Your task to perform on an android device: open wifi settings Image 0: 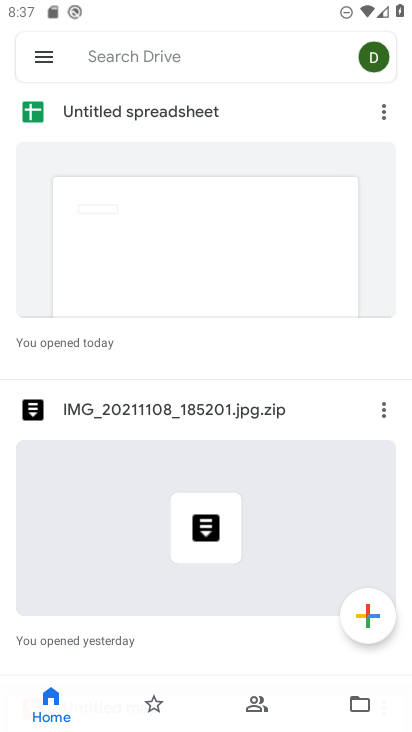
Step 0: press home button
Your task to perform on an android device: open wifi settings Image 1: 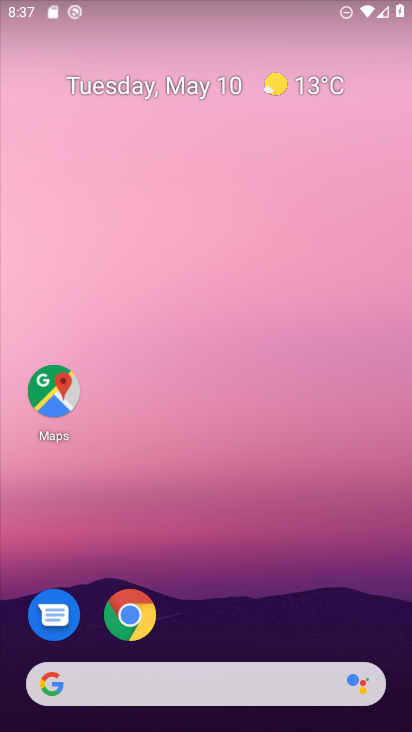
Step 1: drag from (183, 543) to (157, 177)
Your task to perform on an android device: open wifi settings Image 2: 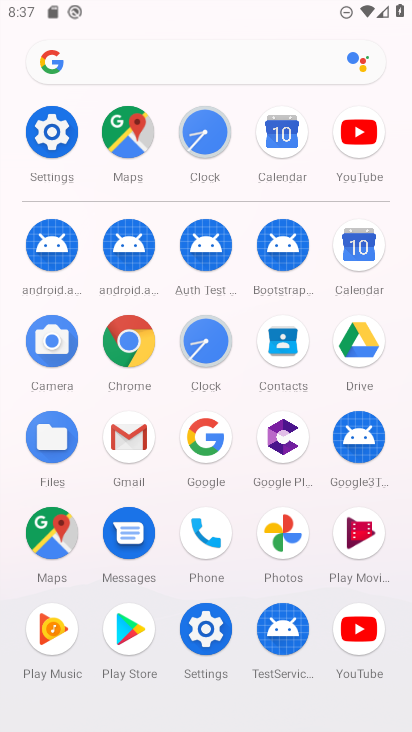
Step 2: click (376, 450)
Your task to perform on an android device: open wifi settings Image 3: 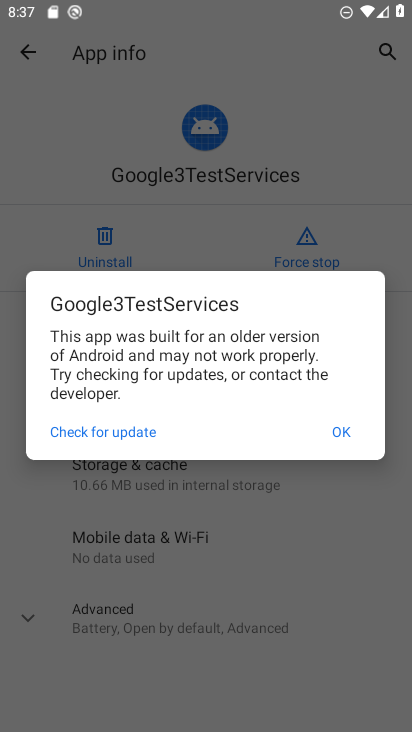
Step 3: click (336, 425)
Your task to perform on an android device: open wifi settings Image 4: 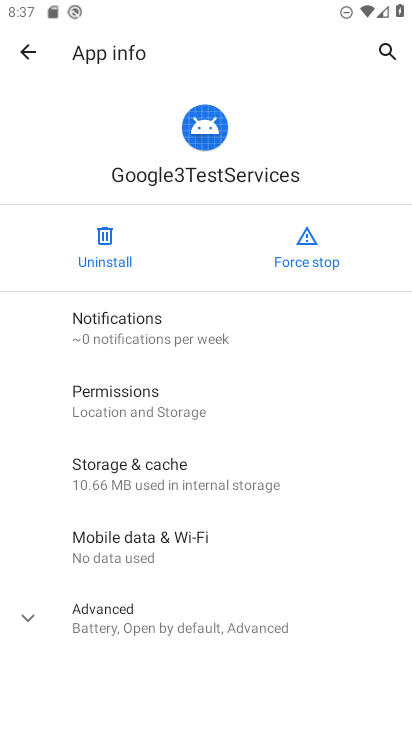
Step 4: press home button
Your task to perform on an android device: open wifi settings Image 5: 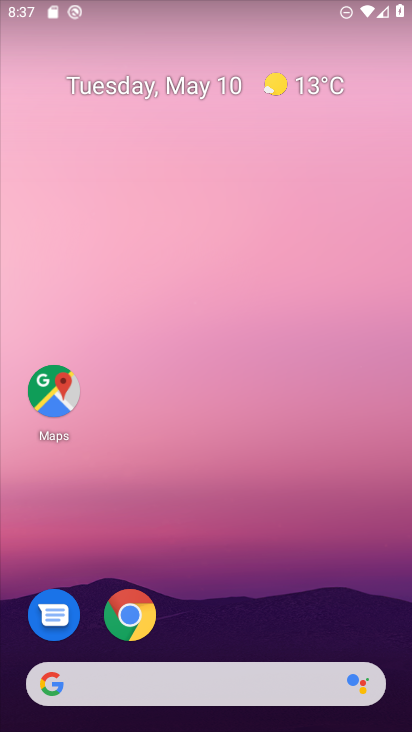
Step 5: drag from (235, 580) to (125, 150)
Your task to perform on an android device: open wifi settings Image 6: 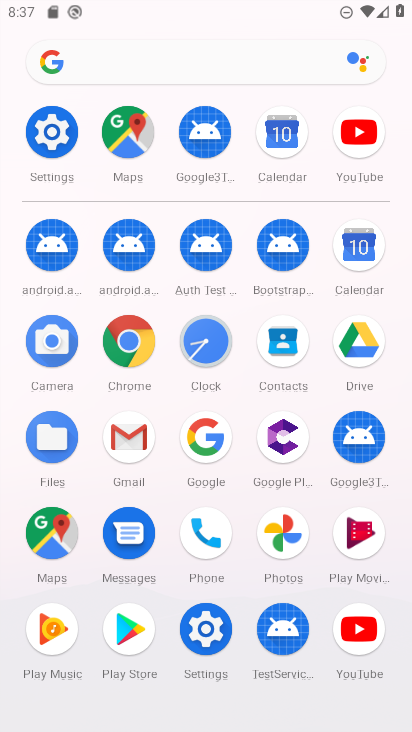
Step 6: click (53, 125)
Your task to perform on an android device: open wifi settings Image 7: 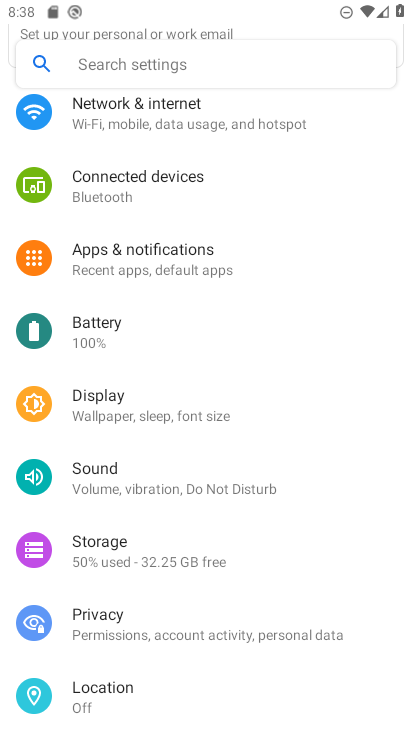
Step 7: click (116, 101)
Your task to perform on an android device: open wifi settings Image 8: 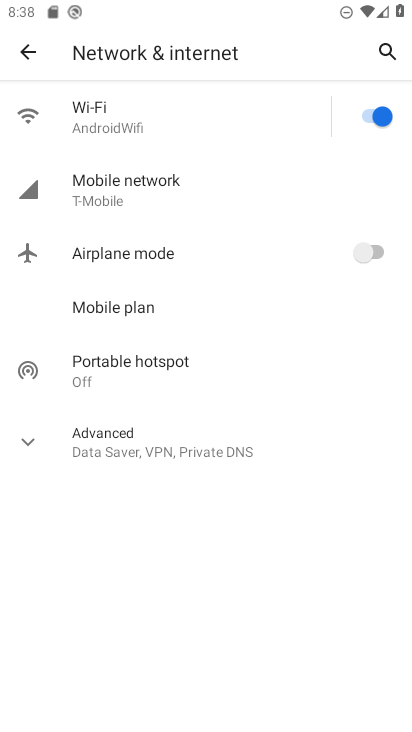
Step 8: click (87, 111)
Your task to perform on an android device: open wifi settings Image 9: 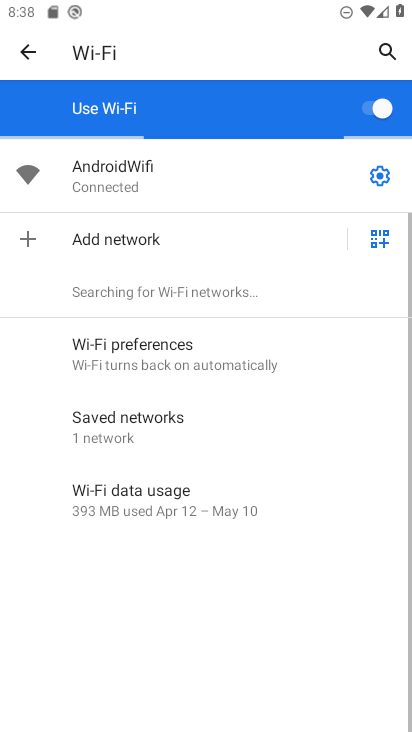
Step 9: task complete